Your task to perform on an android device: open wifi settings Image 0: 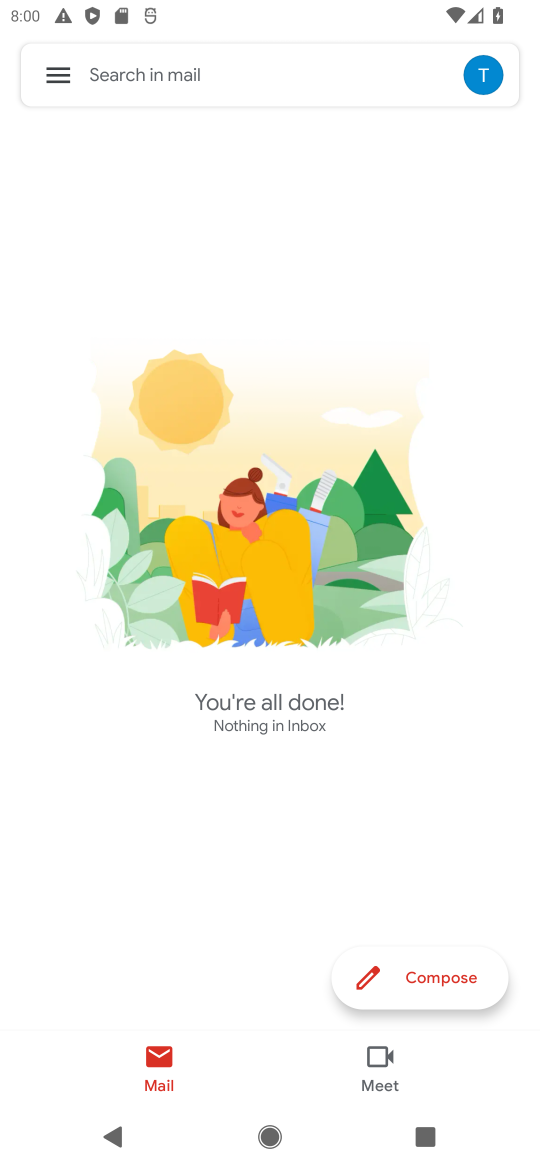
Step 0: drag from (261, 19) to (311, 780)
Your task to perform on an android device: open wifi settings Image 1: 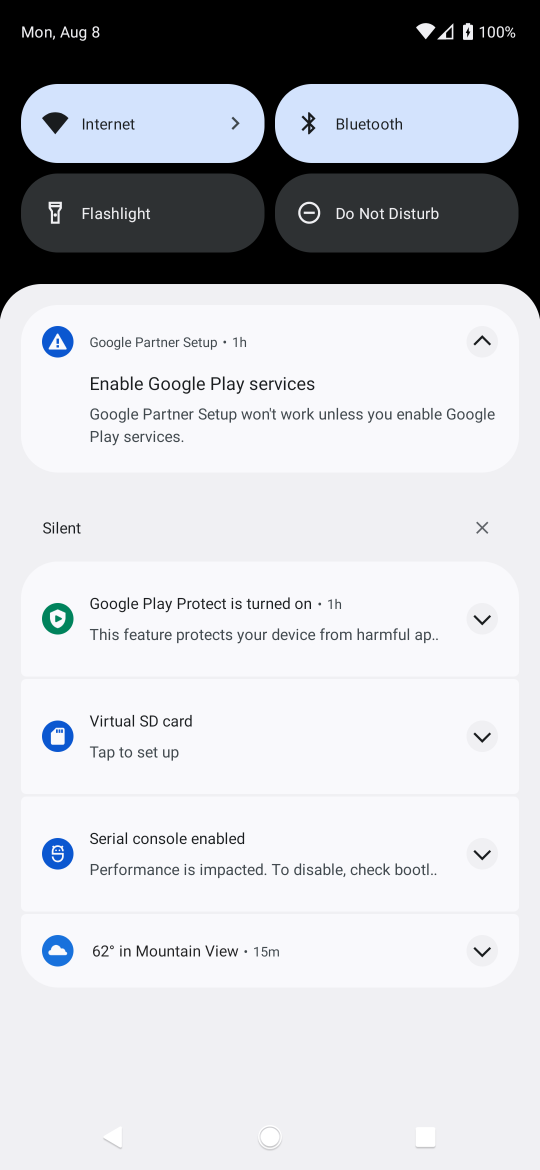
Step 1: click (179, 135)
Your task to perform on an android device: open wifi settings Image 2: 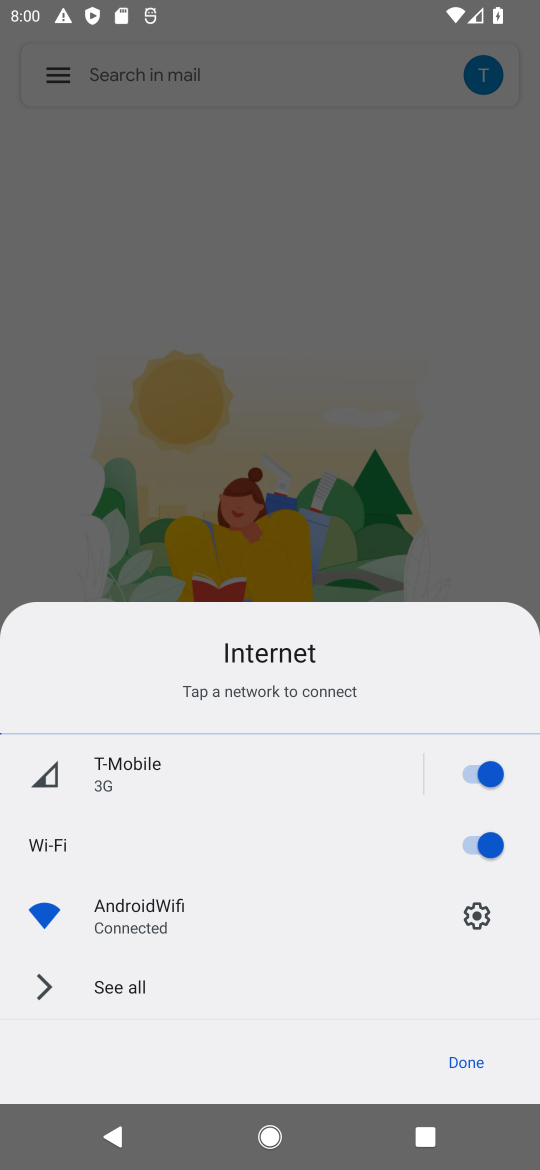
Step 2: click (456, 914)
Your task to perform on an android device: open wifi settings Image 3: 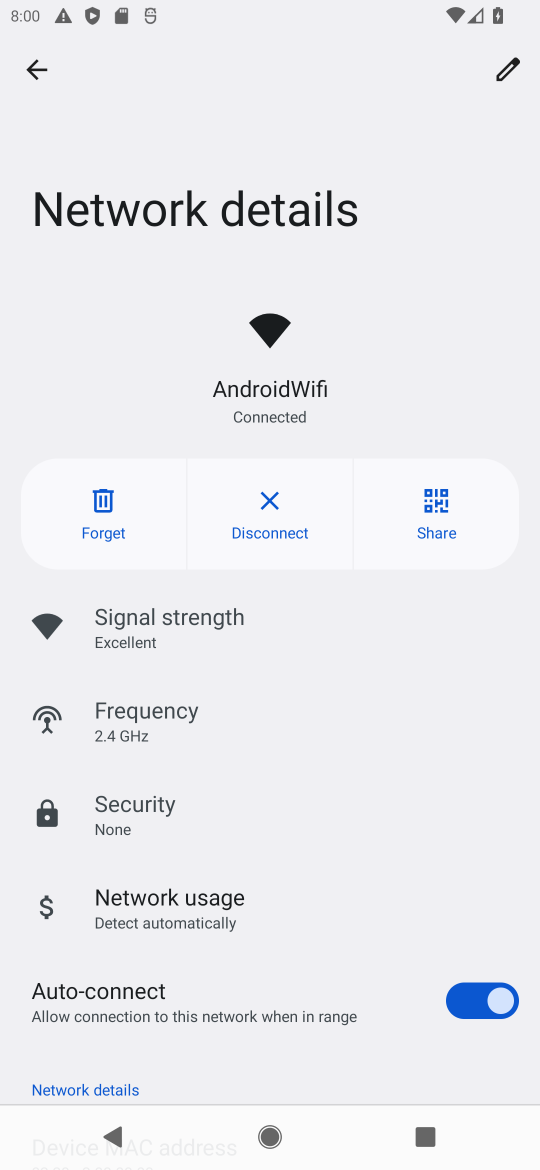
Step 3: task complete